Your task to perform on an android device: open app "Facebook" (install if not already installed) Image 0: 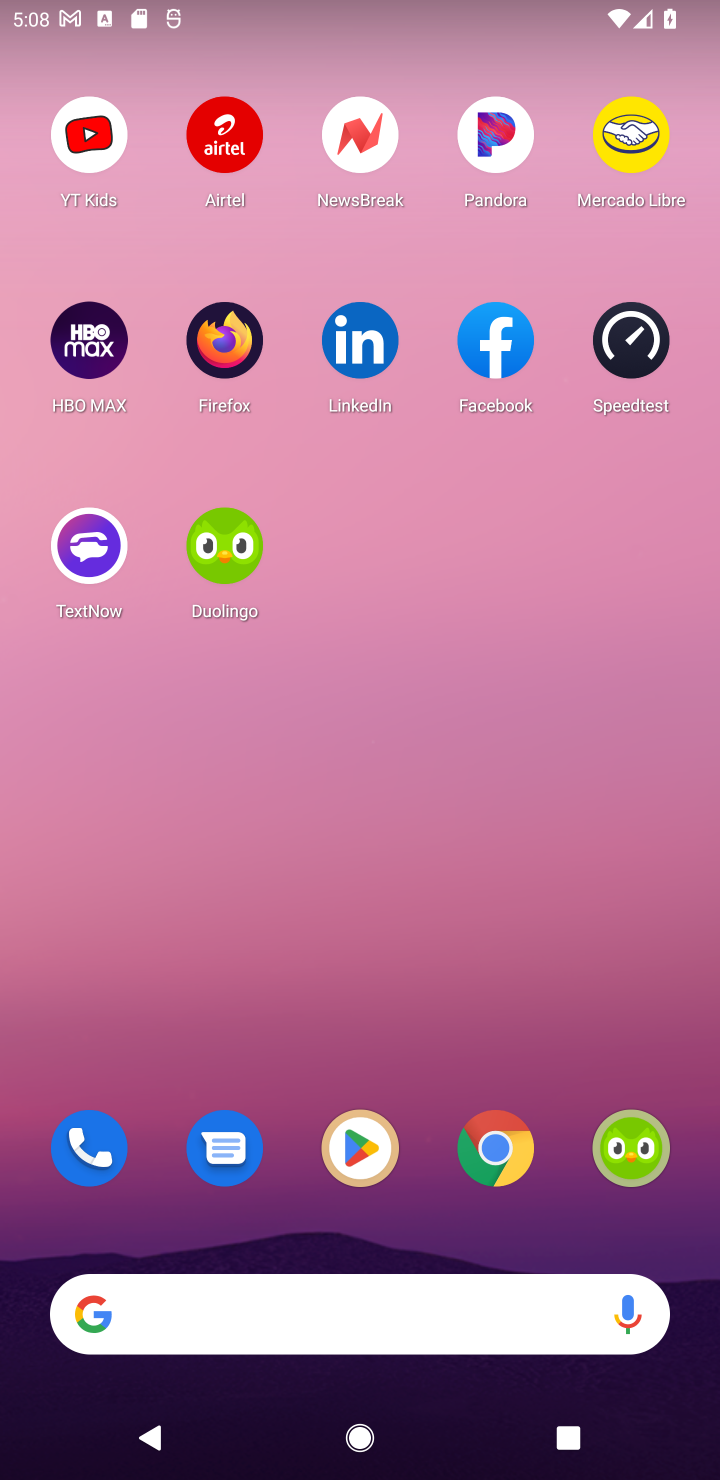
Step 0: click (488, 344)
Your task to perform on an android device: open app "Facebook" (install if not already installed) Image 1: 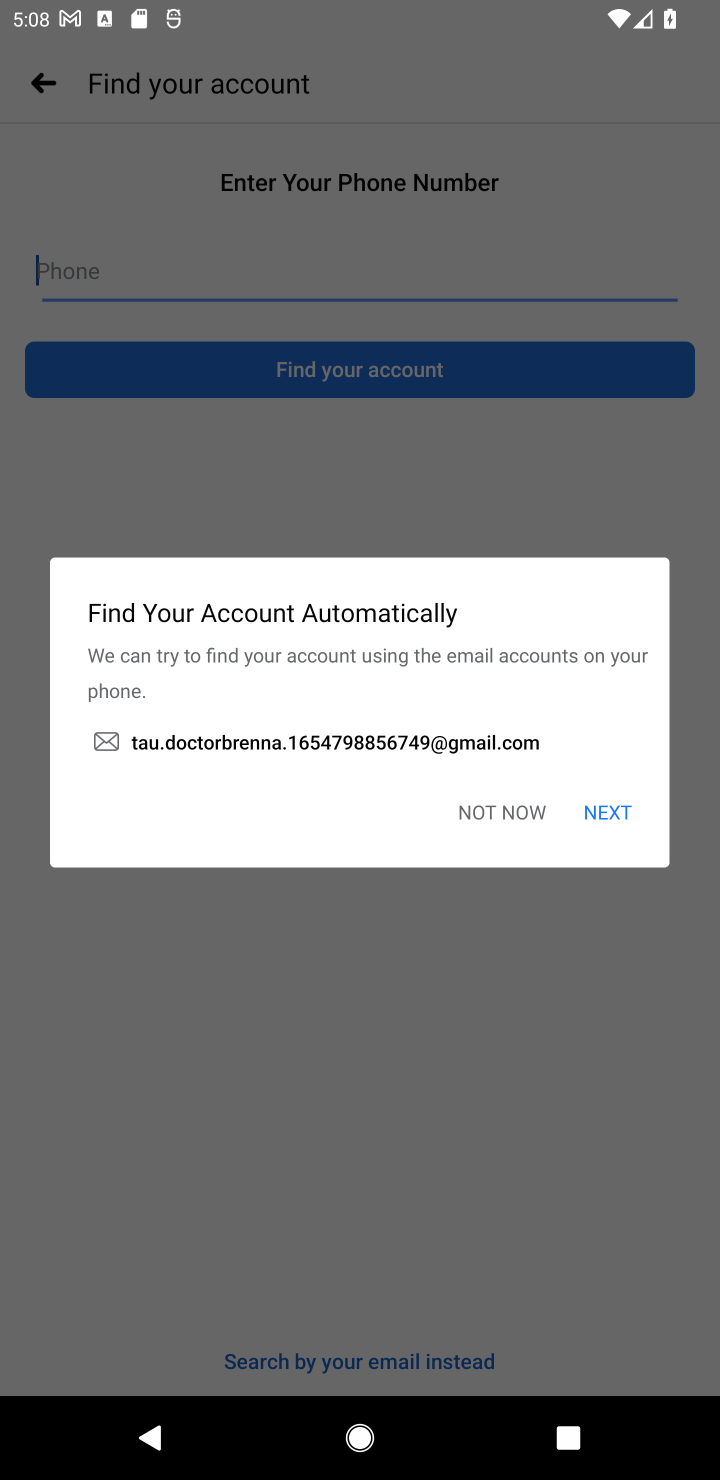
Step 1: task complete